Your task to perform on an android device: Open Google Image 0: 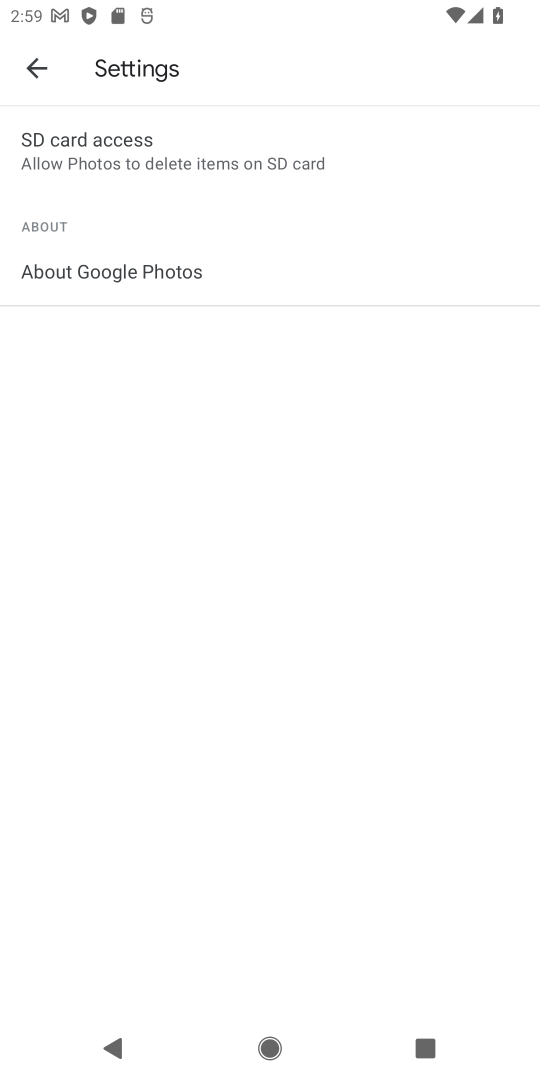
Step 0: press home button
Your task to perform on an android device: Open Google Image 1: 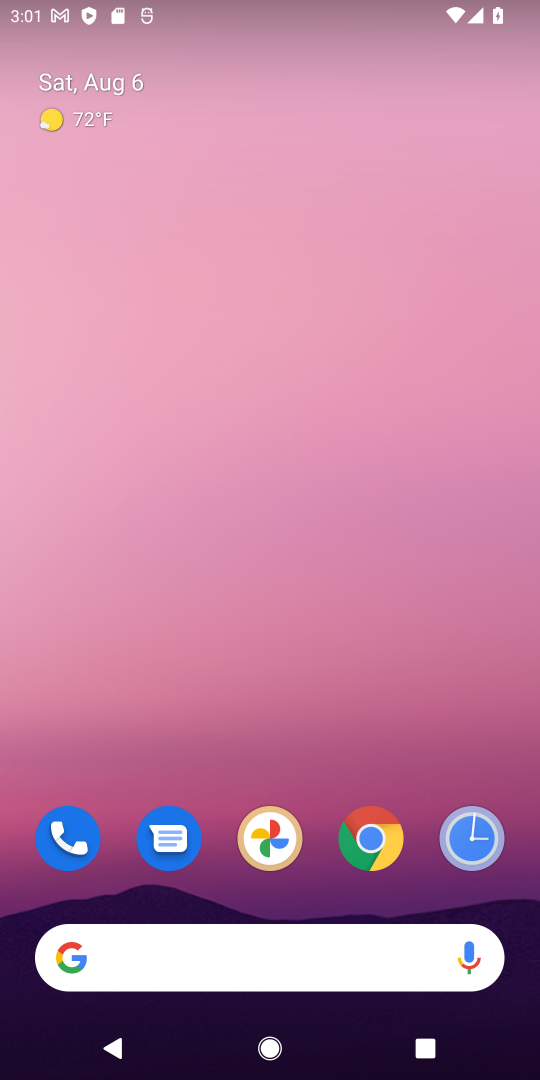
Step 1: drag from (62, 913) to (532, 355)
Your task to perform on an android device: Open Google Image 2: 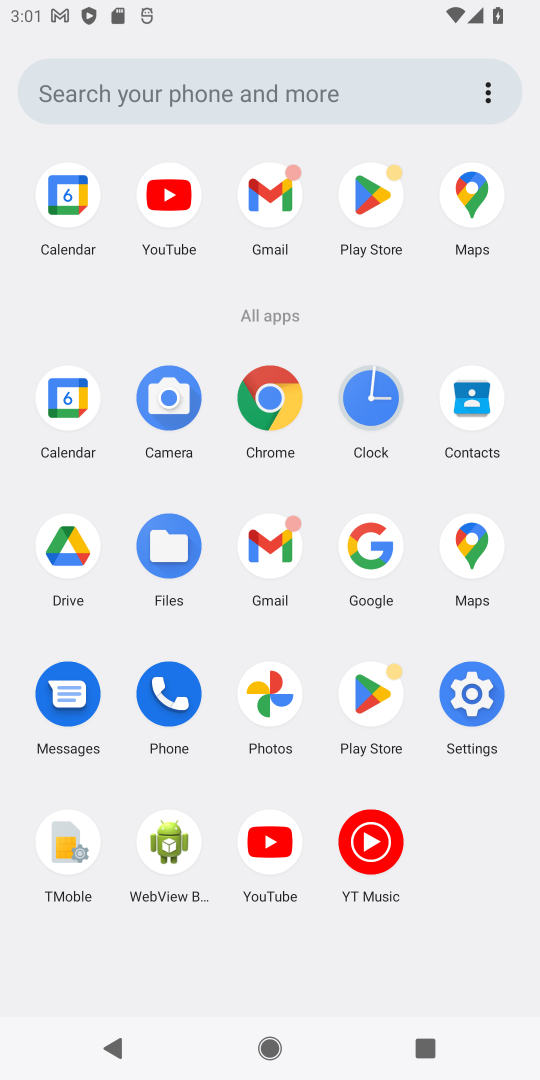
Step 2: click (374, 558)
Your task to perform on an android device: Open Google Image 3: 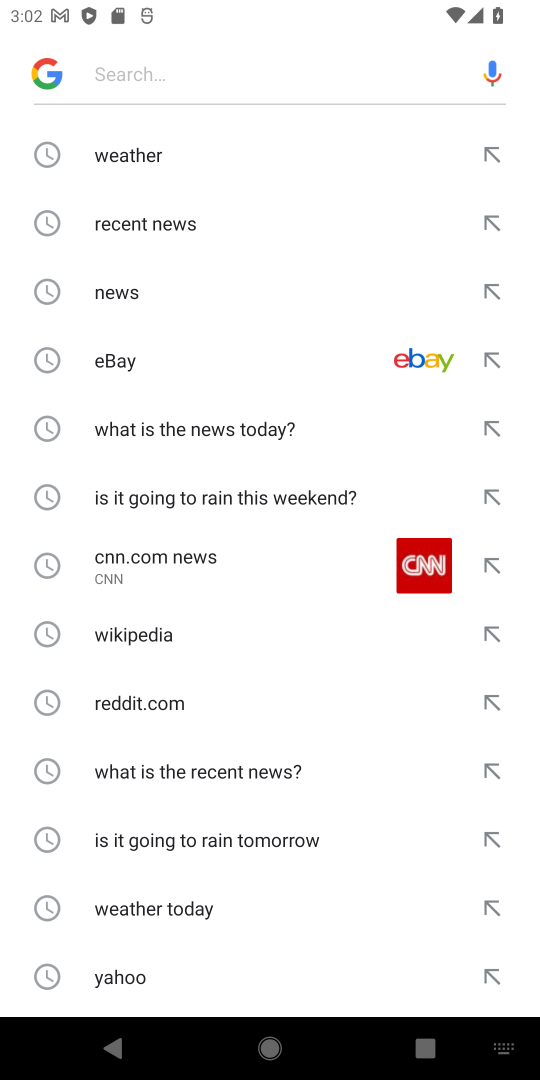
Step 3: click (55, 78)
Your task to perform on an android device: Open Google Image 4: 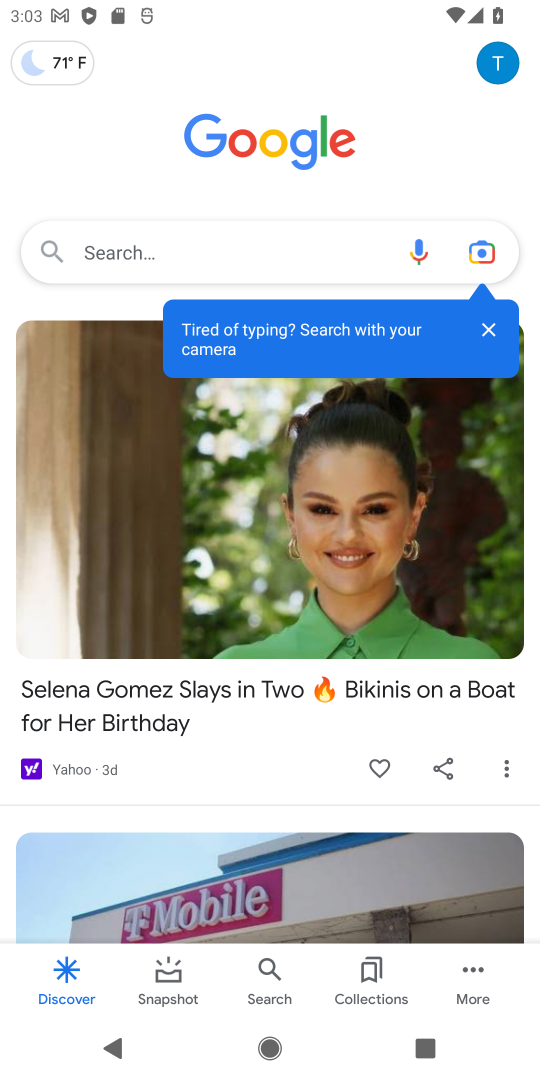
Step 4: task complete